Your task to perform on an android device: What is the capital of Japan? Image 0: 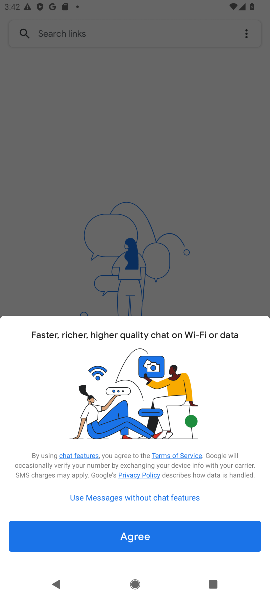
Step 0: press home button
Your task to perform on an android device: What is the capital of Japan? Image 1: 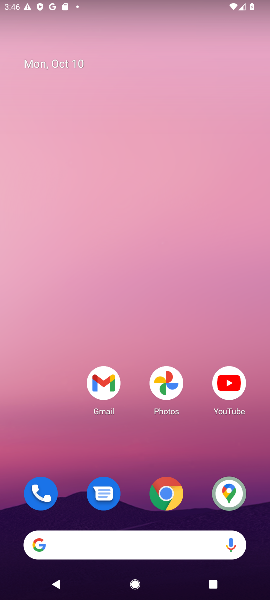
Step 1: click (119, 534)
Your task to perform on an android device: What is the capital of Japan? Image 2: 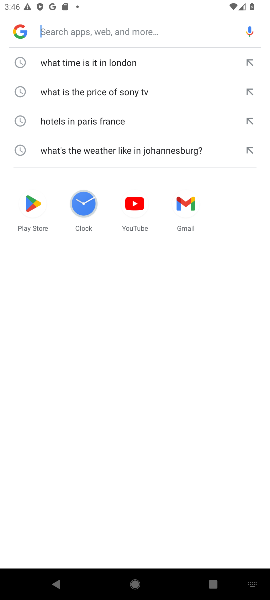
Step 2: type "capital of Japan"
Your task to perform on an android device: What is the capital of Japan? Image 3: 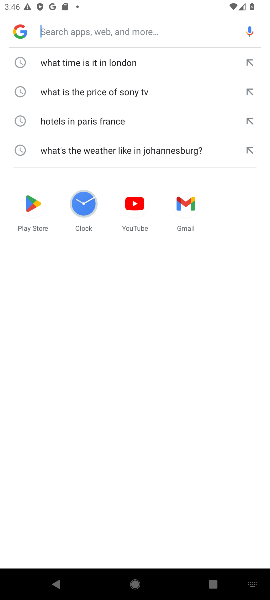
Step 3: click (104, 62)
Your task to perform on an android device: What is the capital of Japan? Image 4: 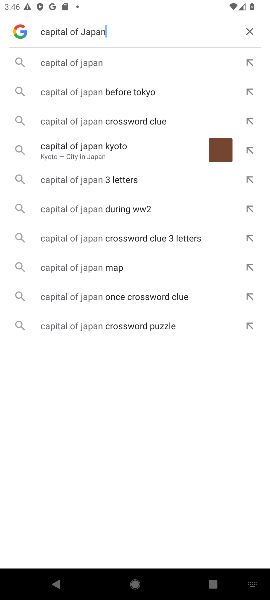
Step 4: task complete